Your task to perform on an android device: Open ESPN.com Image 0: 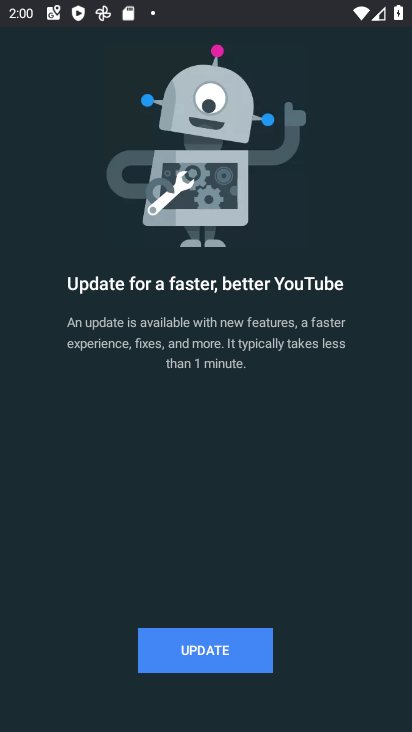
Step 0: press home button
Your task to perform on an android device: Open ESPN.com Image 1: 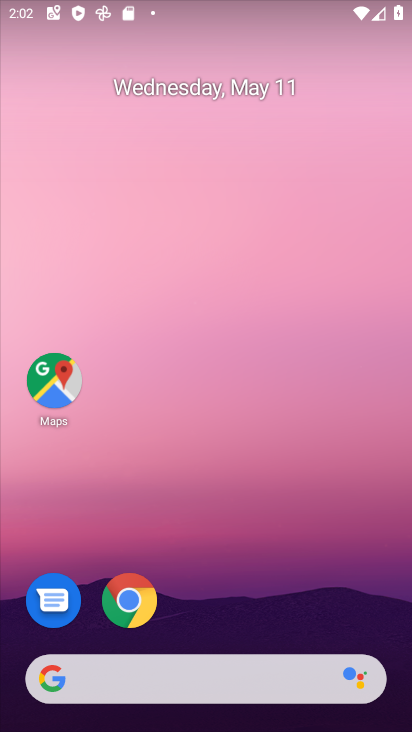
Step 1: click (271, 683)
Your task to perform on an android device: Open ESPN.com Image 2: 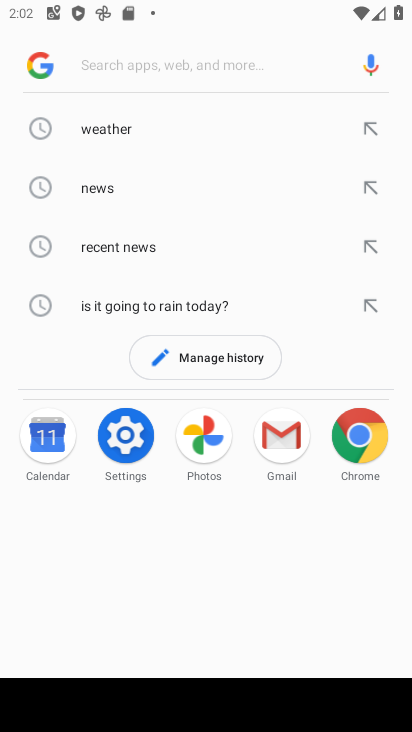
Step 2: type "espn.cpm"
Your task to perform on an android device: Open ESPN.com Image 3: 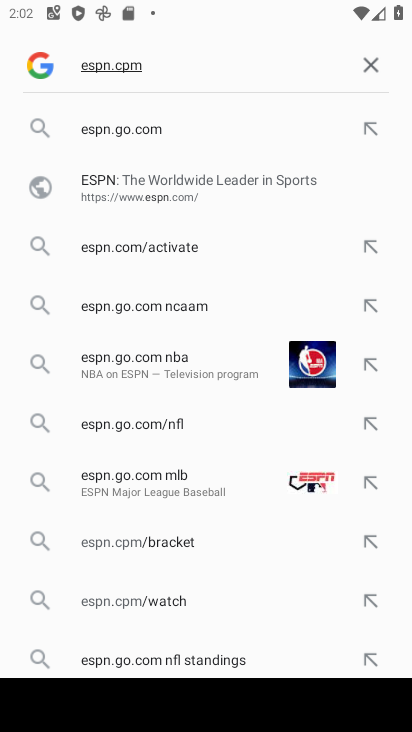
Step 3: click (181, 117)
Your task to perform on an android device: Open ESPN.com Image 4: 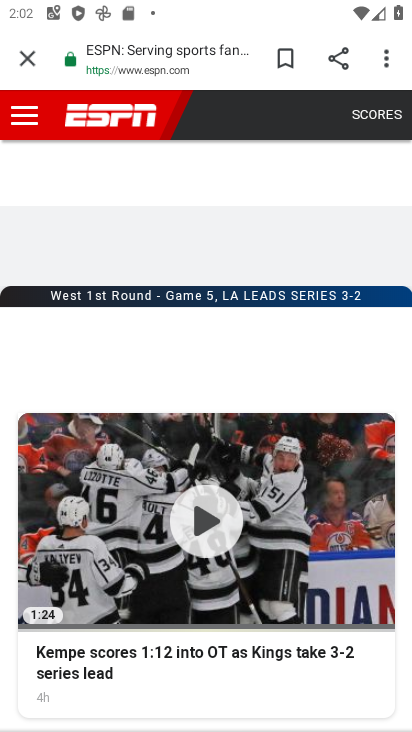
Step 4: task complete